Your task to perform on an android device: Search for sushi restaurants on Maps Image 0: 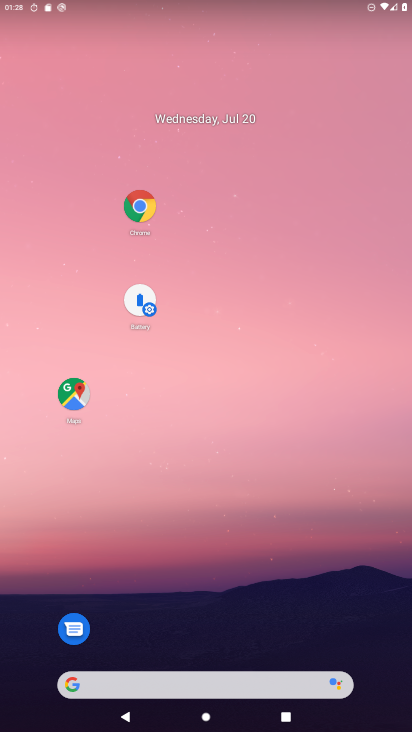
Step 0: drag from (182, 408) to (245, 178)
Your task to perform on an android device: Search for sushi restaurants on Maps Image 1: 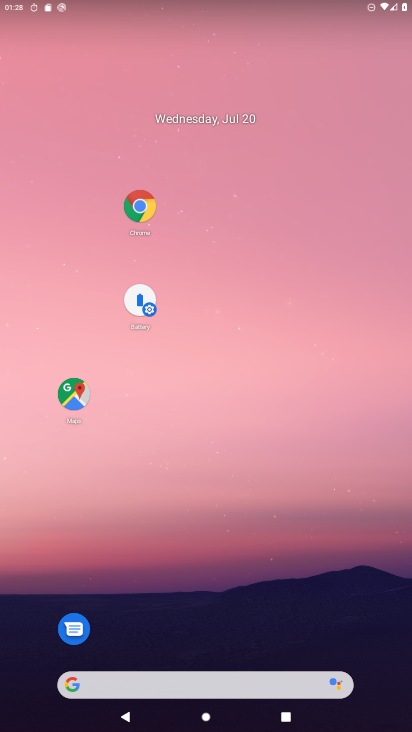
Step 1: drag from (186, 640) to (265, 113)
Your task to perform on an android device: Search for sushi restaurants on Maps Image 2: 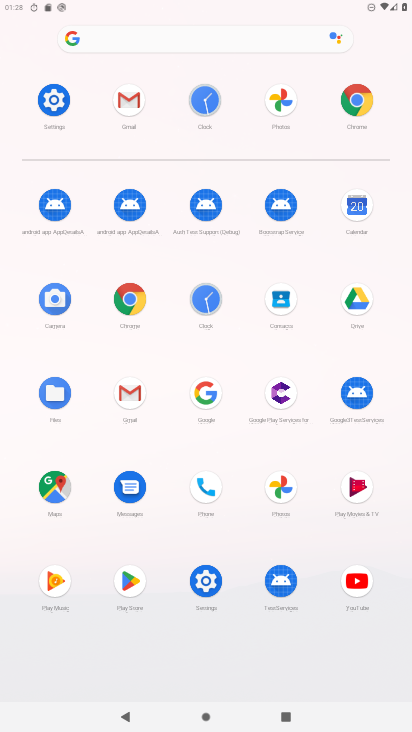
Step 2: click (40, 494)
Your task to perform on an android device: Search for sushi restaurants on Maps Image 3: 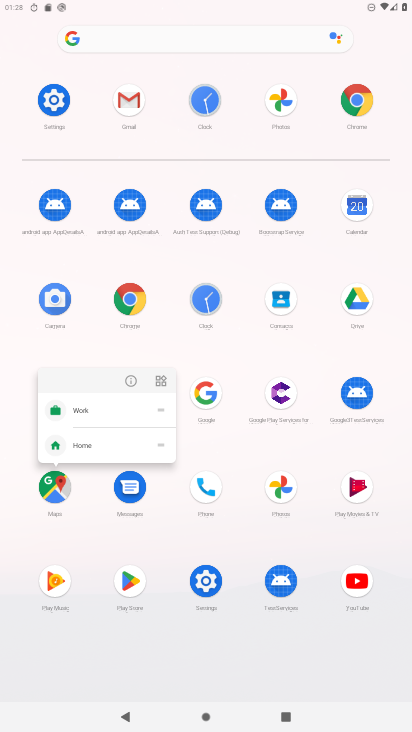
Step 3: click (133, 380)
Your task to perform on an android device: Search for sushi restaurants on Maps Image 4: 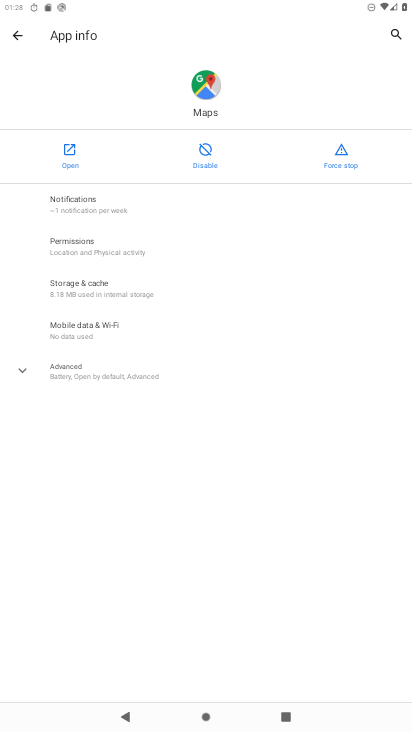
Step 4: click (74, 160)
Your task to perform on an android device: Search for sushi restaurants on Maps Image 5: 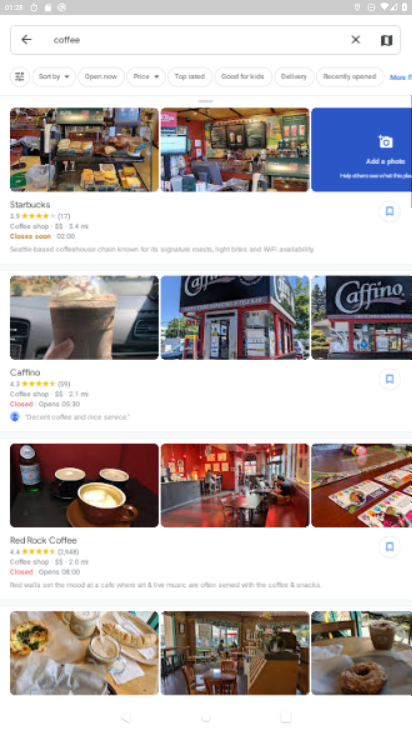
Step 5: click (355, 39)
Your task to perform on an android device: Search for sushi restaurants on Maps Image 6: 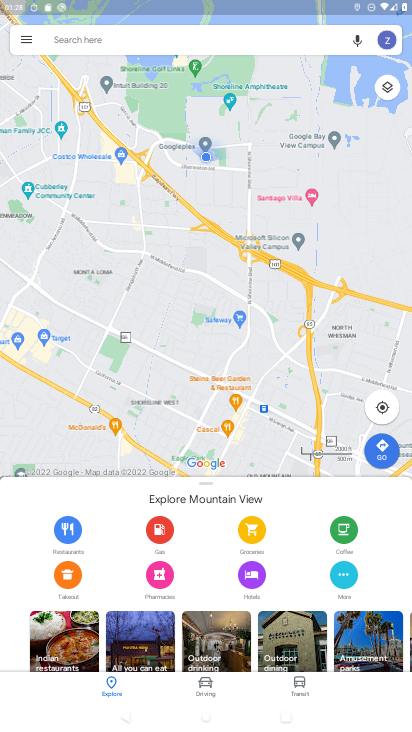
Step 6: click (239, 39)
Your task to perform on an android device: Search for sushi restaurants on Maps Image 7: 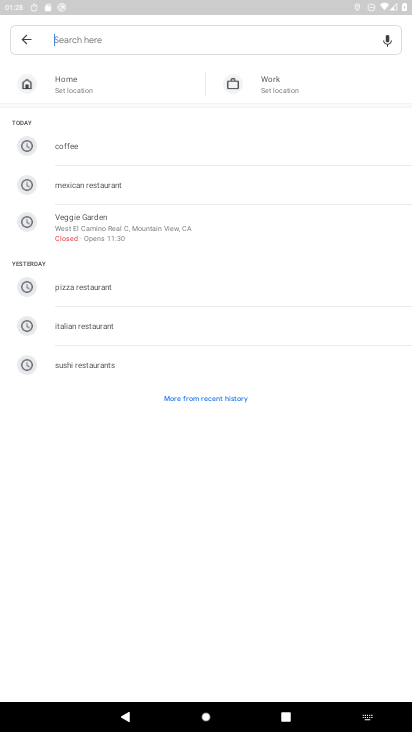
Step 7: click (83, 365)
Your task to perform on an android device: Search for sushi restaurants on Maps Image 8: 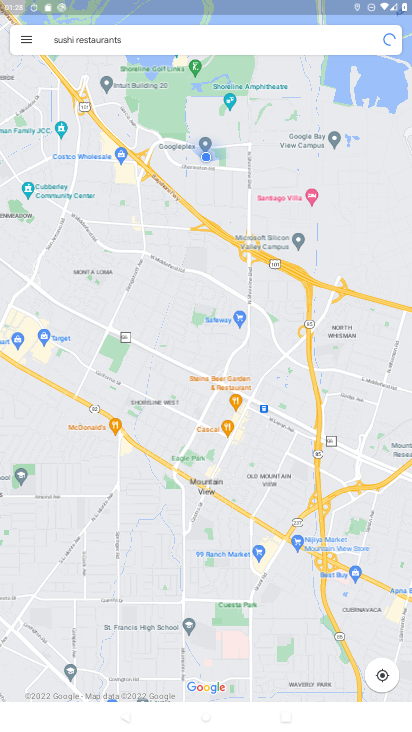
Step 8: task complete